Your task to perform on an android device: change alarm snooze length Image 0: 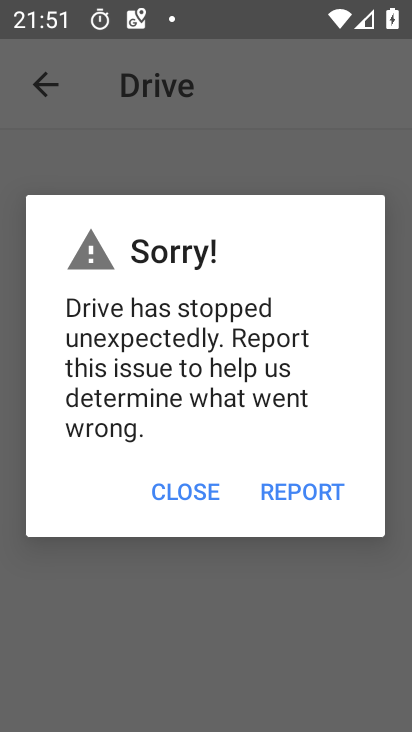
Step 0: press home button
Your task to perform on an android device: change alarm snooze length Image 1: 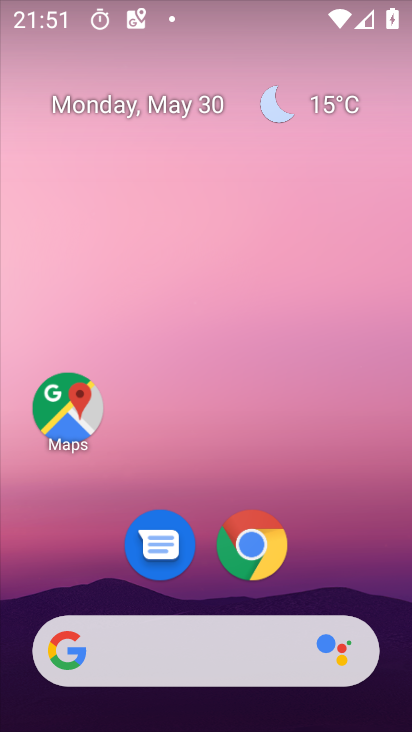
Step 1: drag from (351, 590) to (348, 189)
Your task to perform on an android device: change alarm snooze length Image 2: 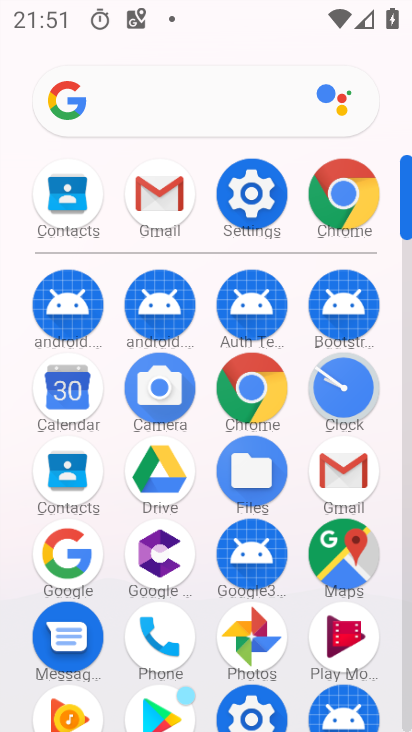
Step 2: click (343, 385)
Your task to perform on an android device: change alarm snooze length Image 3: 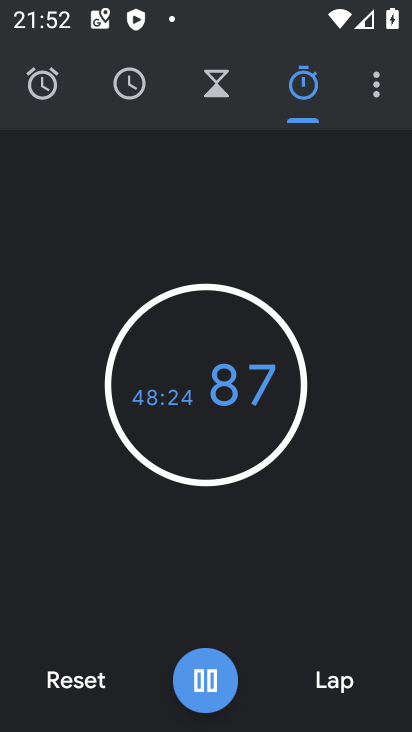
Step 3: click (382, 98)
Your task to perform on an android device: change alarm snooze length Image 4: 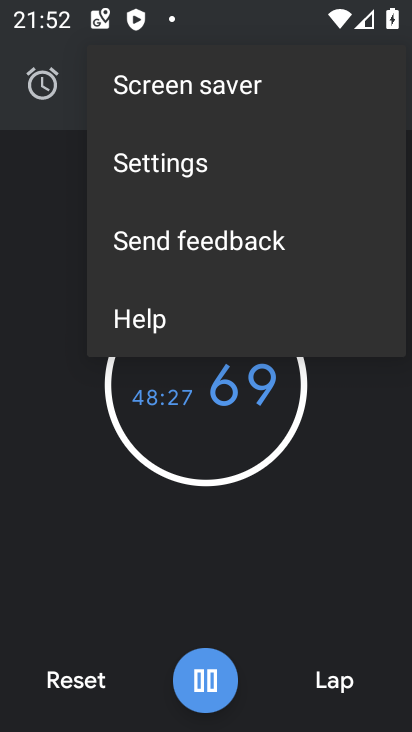
Step 4: click (193, 166)
Your task to perform on an android device: change alarm snooze length Image 5: 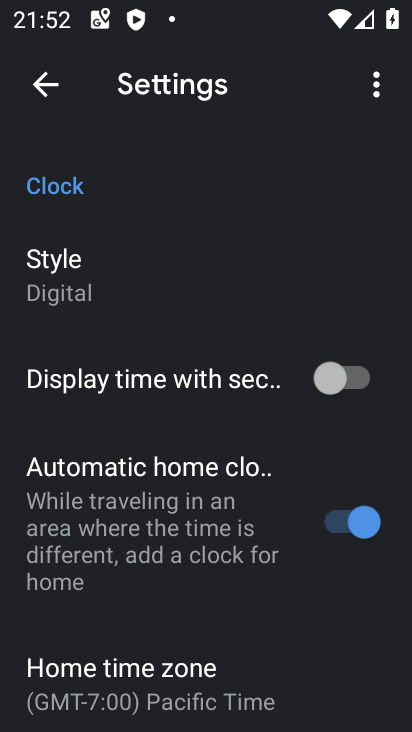
Step 5: drag from (257, 643) to (253, 390)
Your task to perform on an android device: change alarm snooze length Image 6: 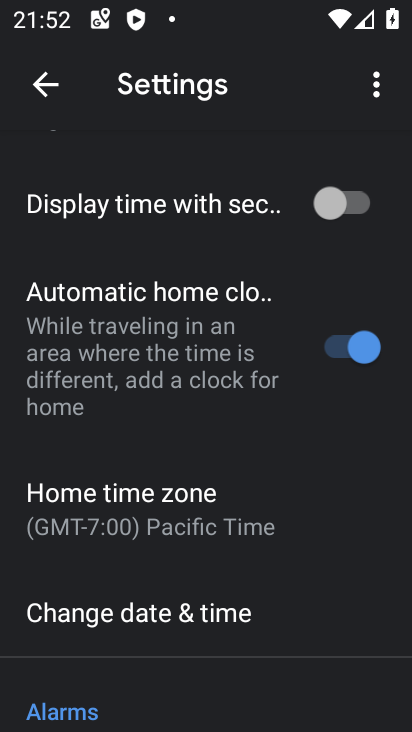
Step 6: drag from (277, 642) to (284, 277)
Your task to perform on an android device: change alarm snooze length Image 7: 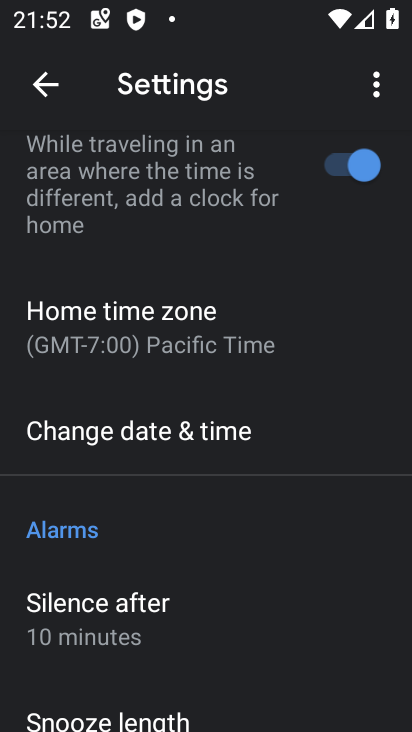
Step 7: drag from (246, 630) to (266, 380)
Your task to perform on an android device: change alarm snooze length Image 8: 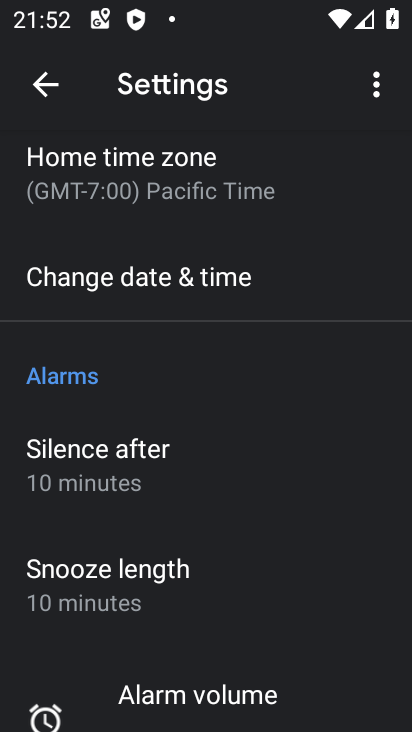
Step 8: click (135, 585)
Your task to perform on an android device: change alarm snooze length Image 9: 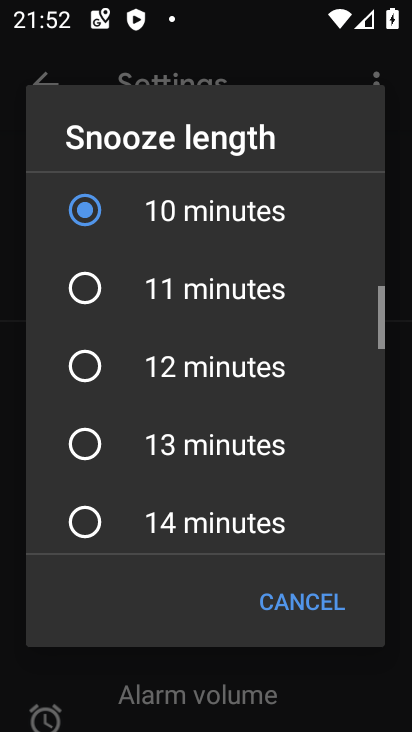
Step 9: drag from (195, 252) to (180, 530)
Your task to perform on an android device: change alarm snooze length Image 10: 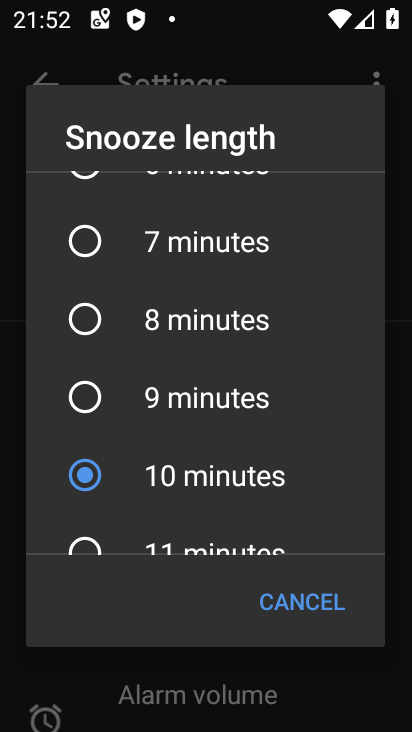
Step 10: drag from (217, 250) to (228, 505)
Your task to perform on an android device: change alarm snooze length Image 11: 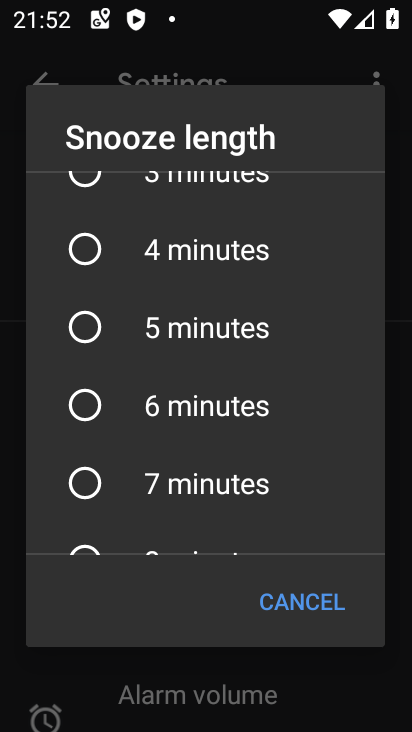
Step 11: click (82, 321)
Your task to perform on an android device: change alarm snooze length Image 12: 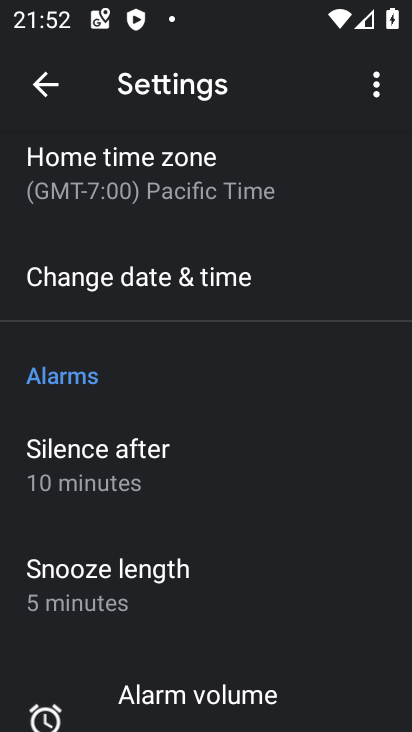
Step 12: task complete